Your task to perform on an android device: View the shopping cart on target. Add "jbl charge 4" to the cart on target Image 0: 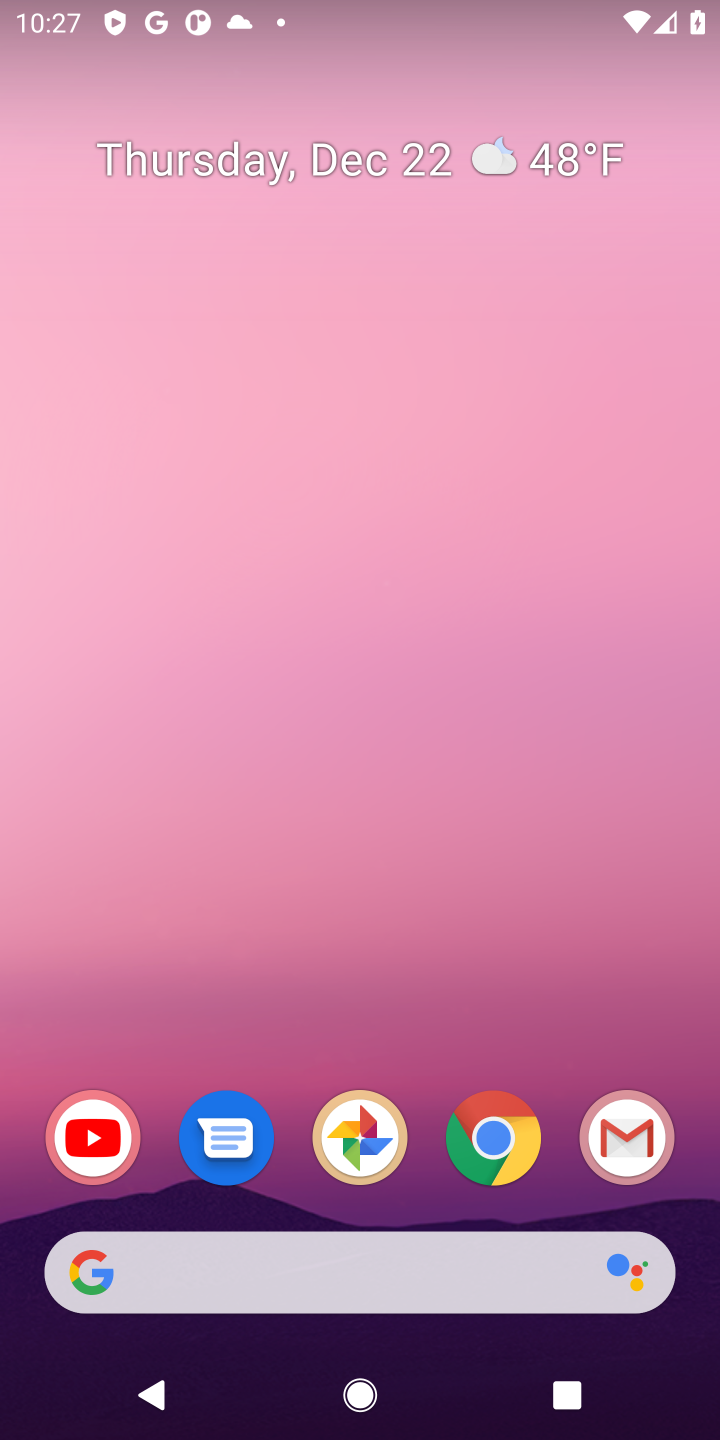
Step 0: click (485, 1135)
Your task to perform on an android device: View the shopping cart on target. Add "jbl charge 4" to the cart on target Image 1: 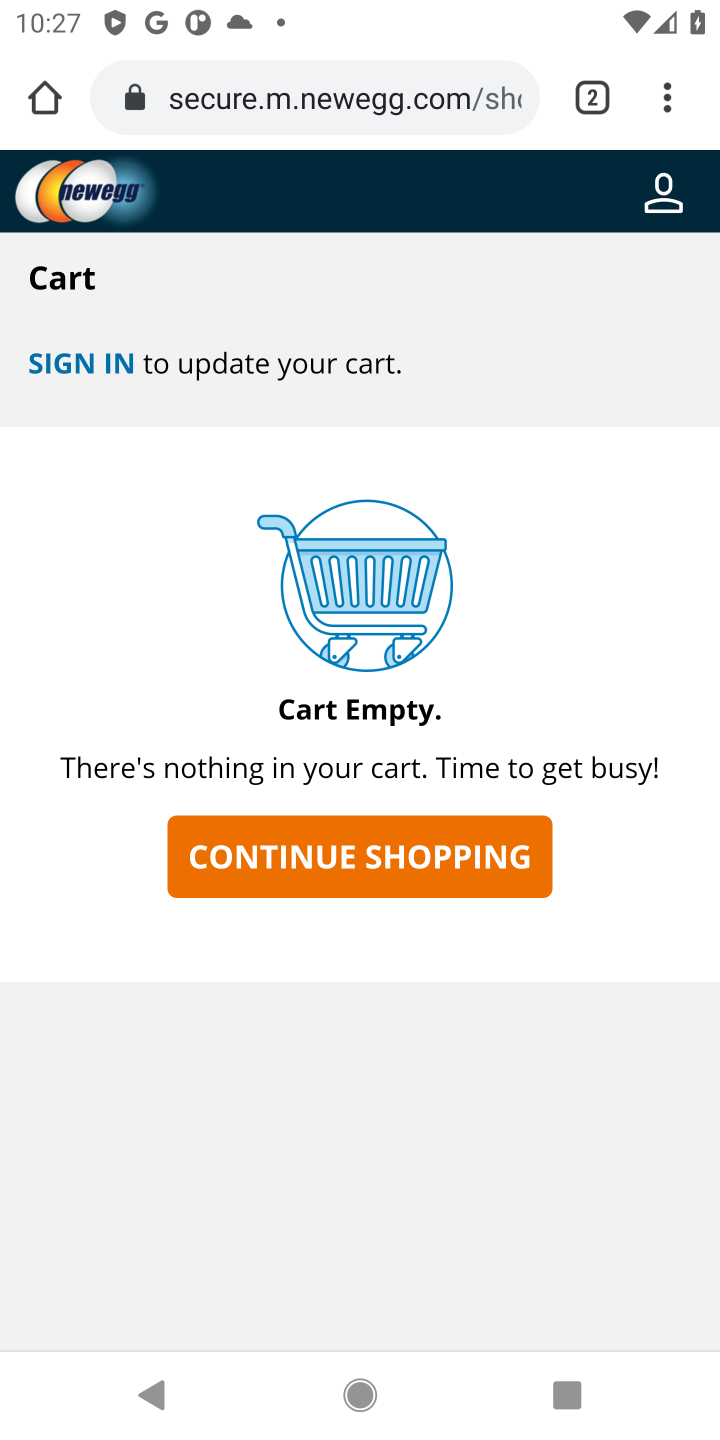
Step 1: click (472, 113)
Your task to perform on an android device: View the shopping cart on target. Add "jbl charge 4" to the cart on target Image 2: 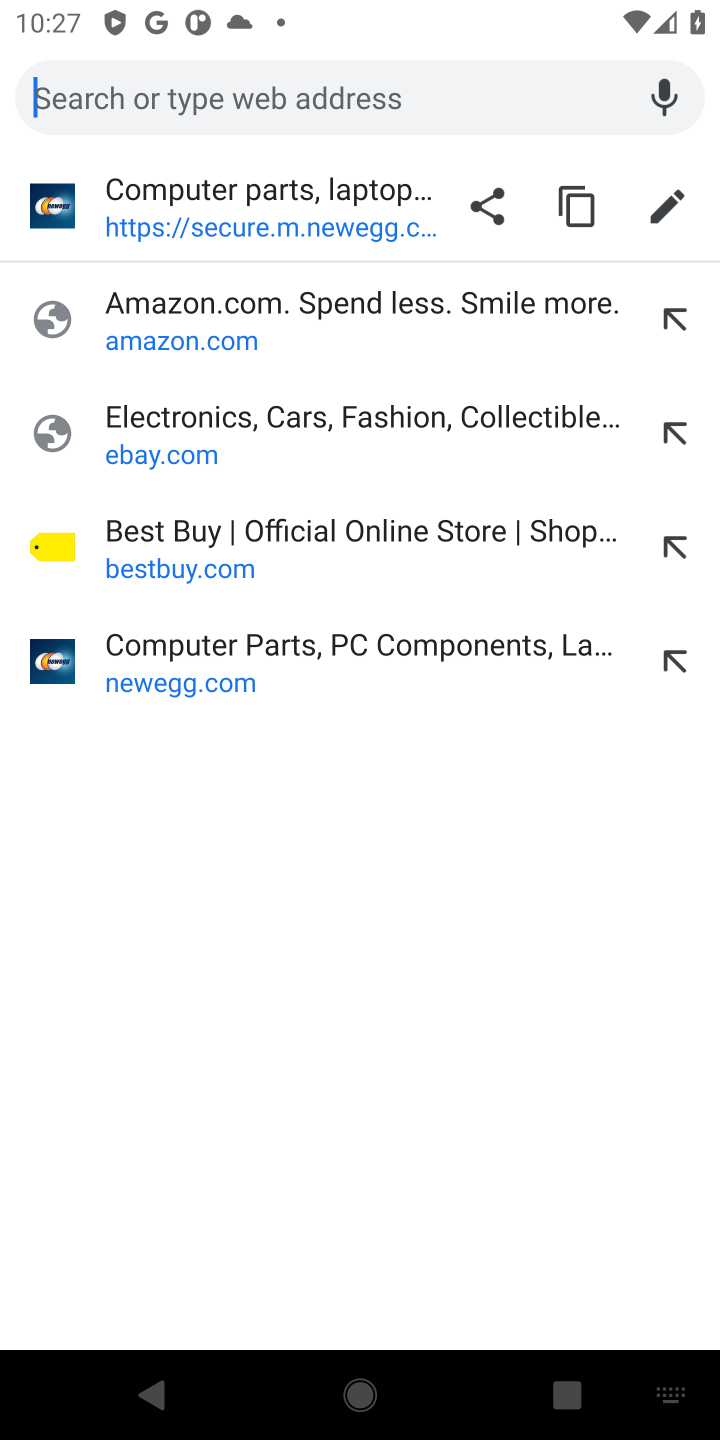
Step 2: type "target"
Your task to perform on an android device: View the shopping cart on target. Add "jbl charge 4" to the cart on target Image 3: 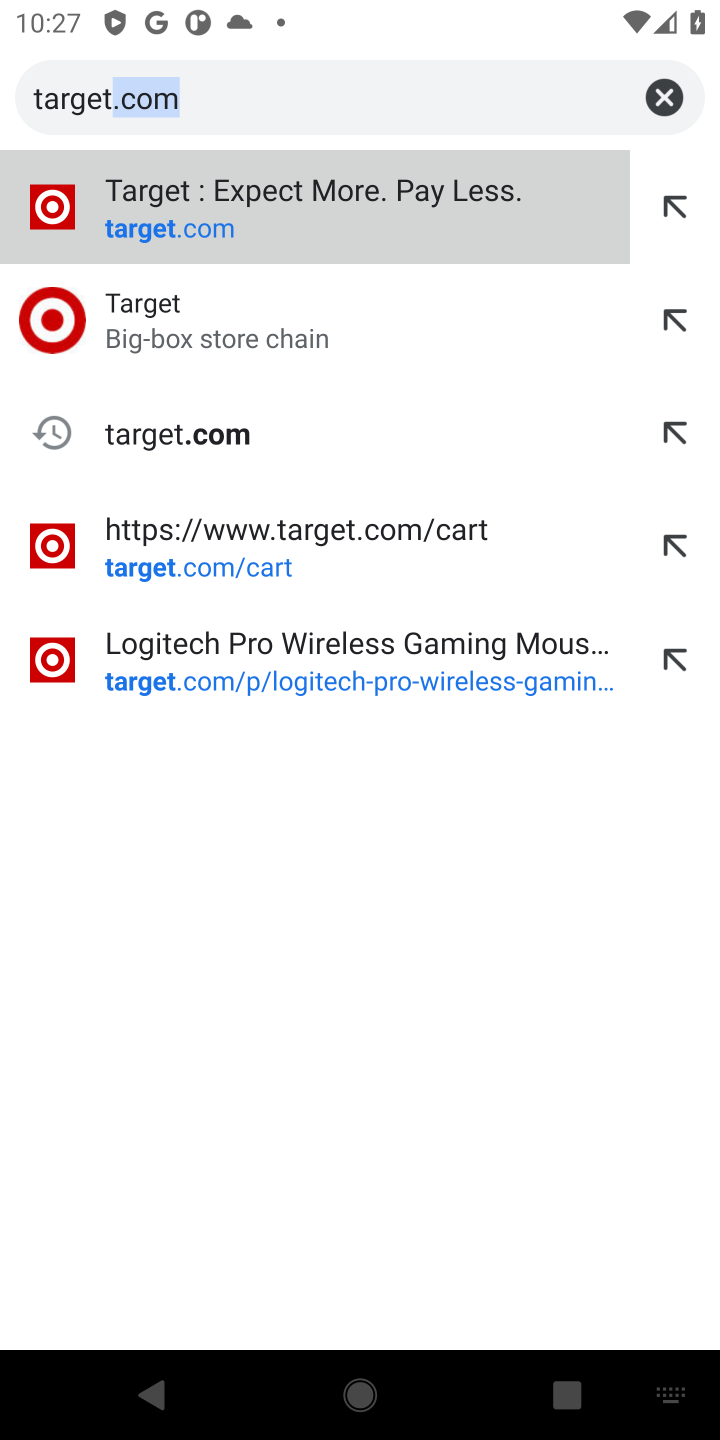
Step 3: press enter
Your task to perform on an android device: View the shopping cart on target. Add "jbl charge 4" to the cart on target Image 4: 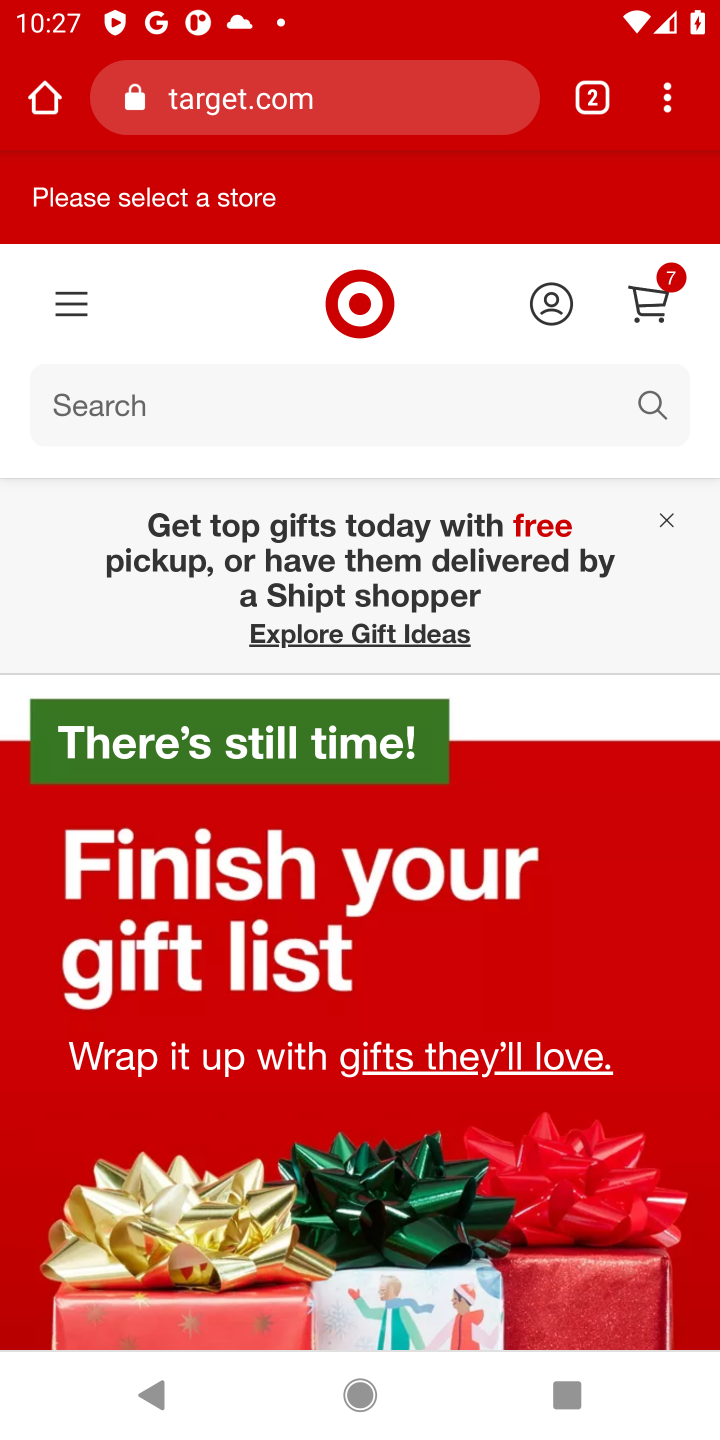
Step 4: click (640, 305)
Your task to perform on an android device: View the shopping cart on target. Add "jbl charge 4" to the cart on target Image 5: 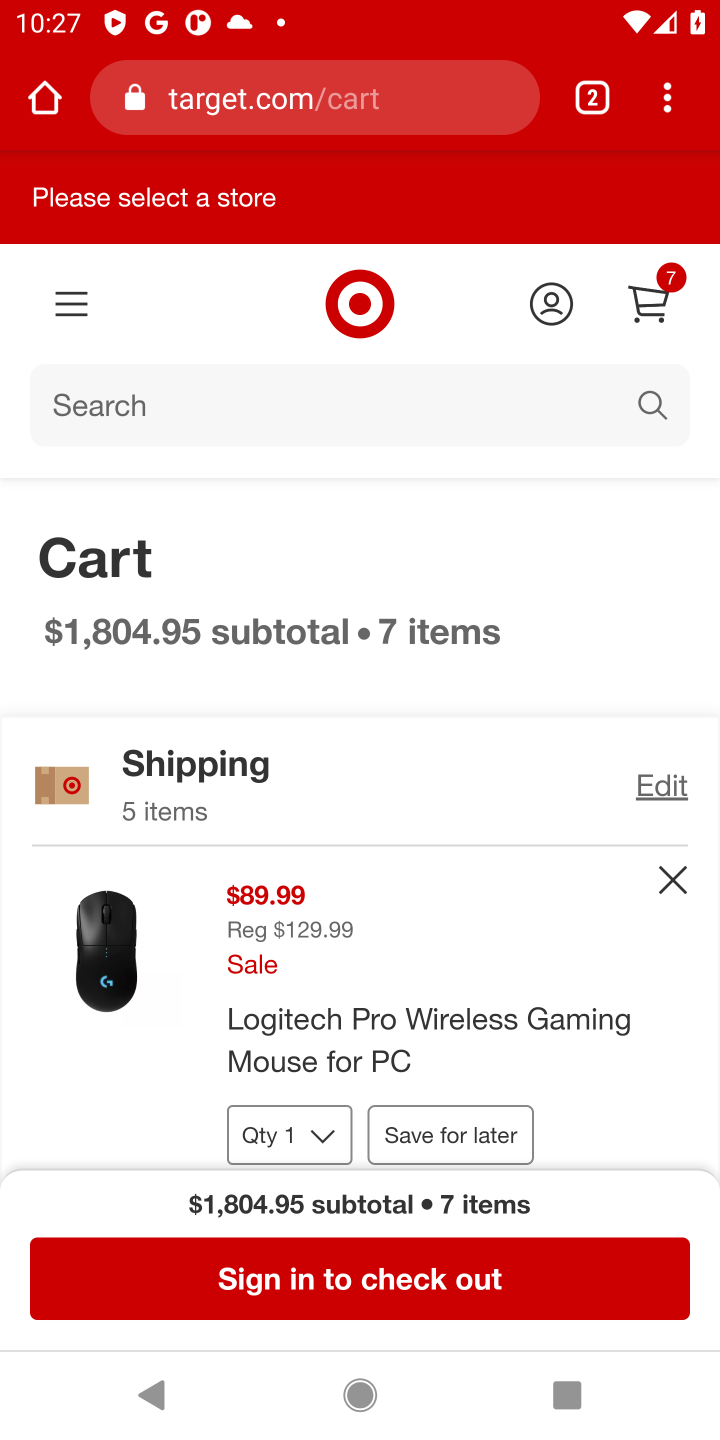
Step 5: click (270, 408)
Your task to perform on an android device: View the shopping cart on target. Add "jbl charge 4" to the cart on target Image 6: 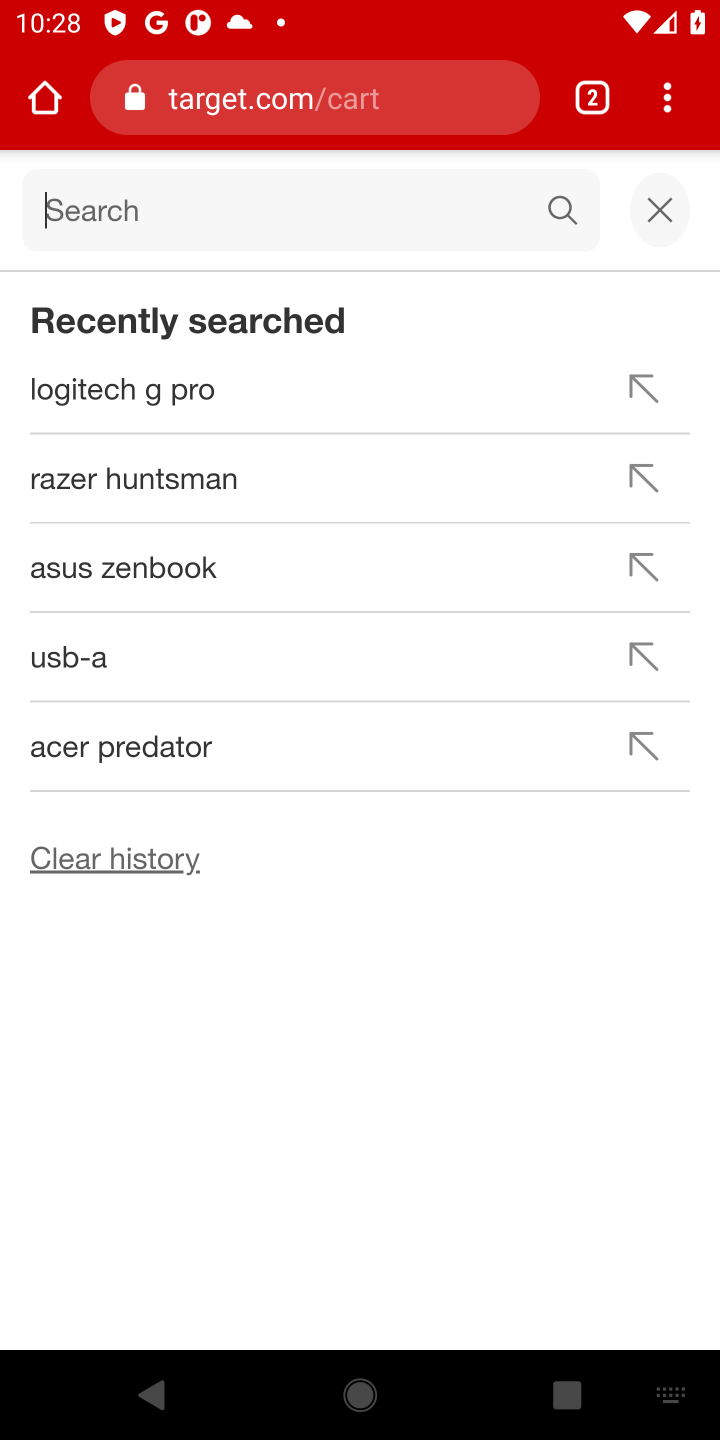
Step 6: press enter
Your task to perform on an android device: View the shopping cart on target. Add "jbl charge 4" to the cart on target Image 7: 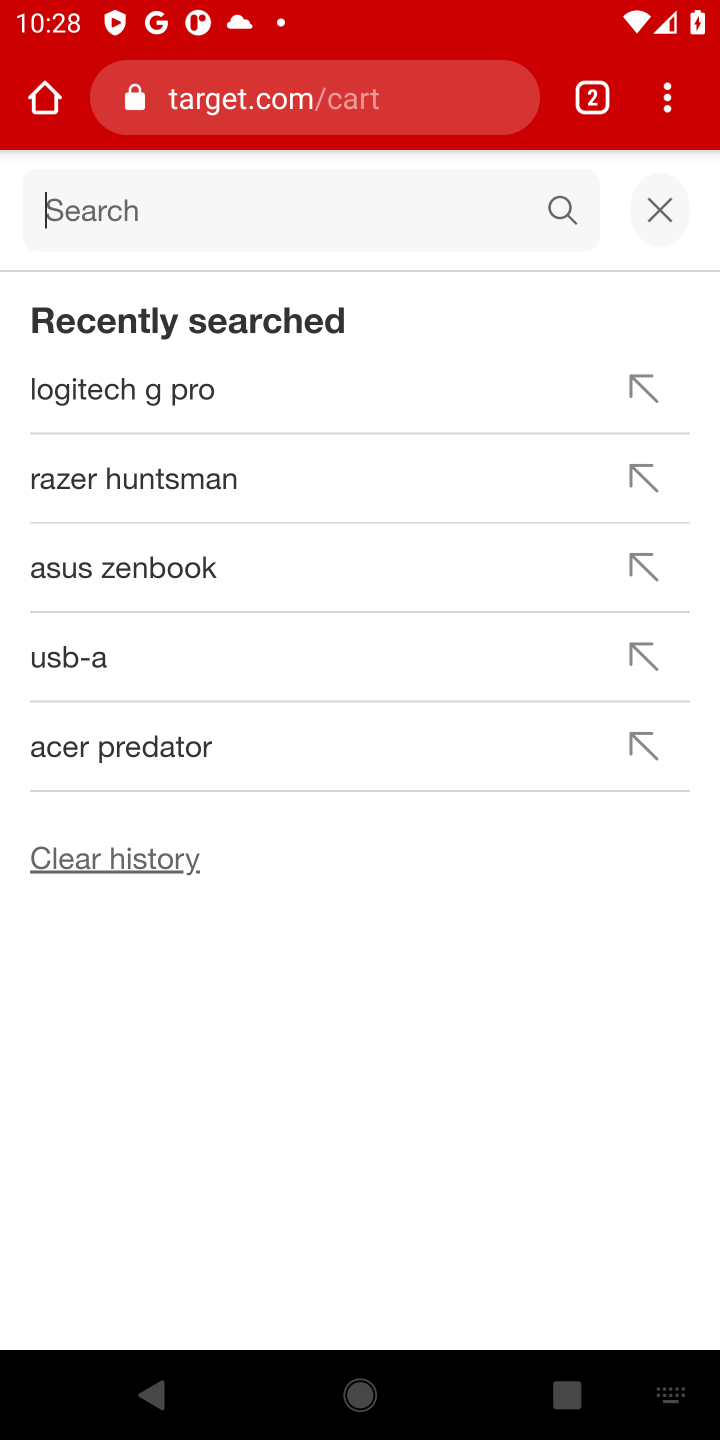
Step 7: type "jbl charge 4"
Your task to perform on an android device: View the shopping cart on target. Add "jbl charge 4" to the cart on target Image 8: 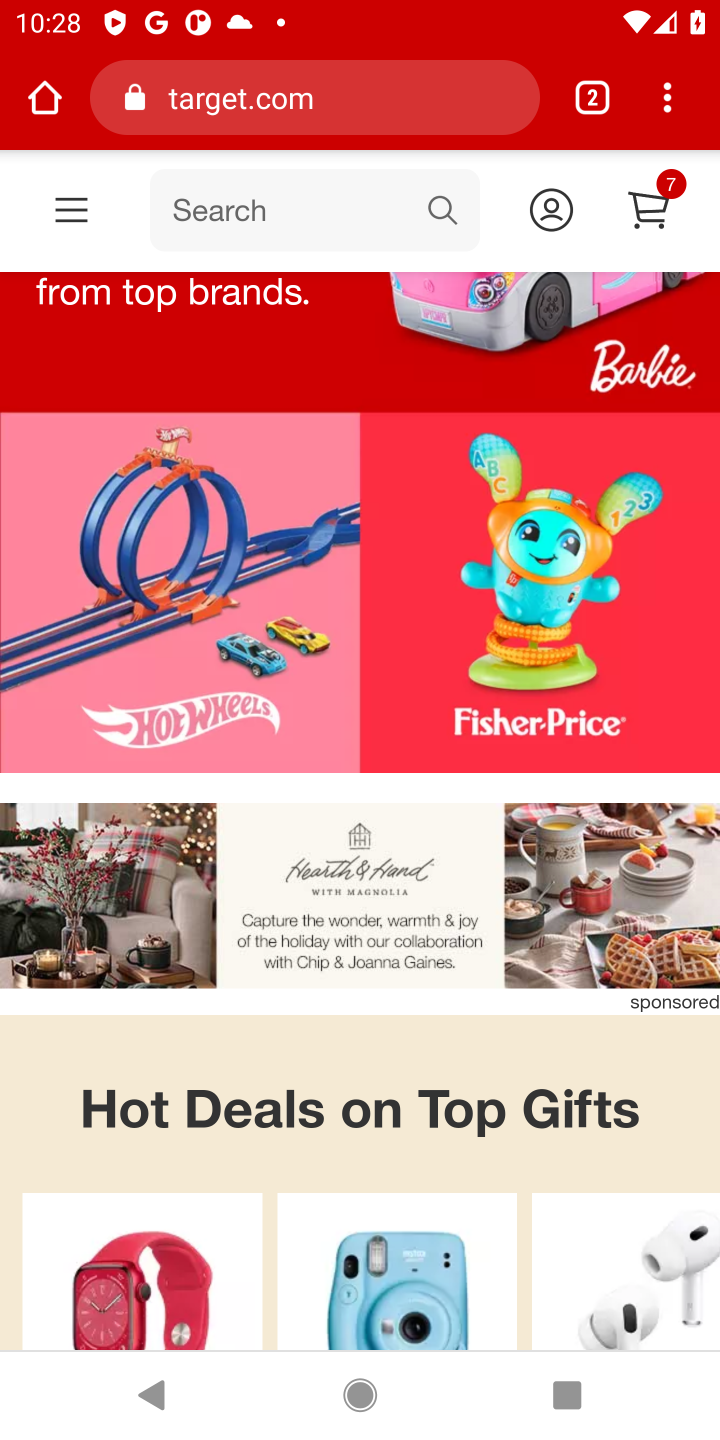
Step 8: click (356, 210)
Your task to perform on an android device: View the shopping cart on target. Add "jbl charge 4" to the cart on target Image 9: 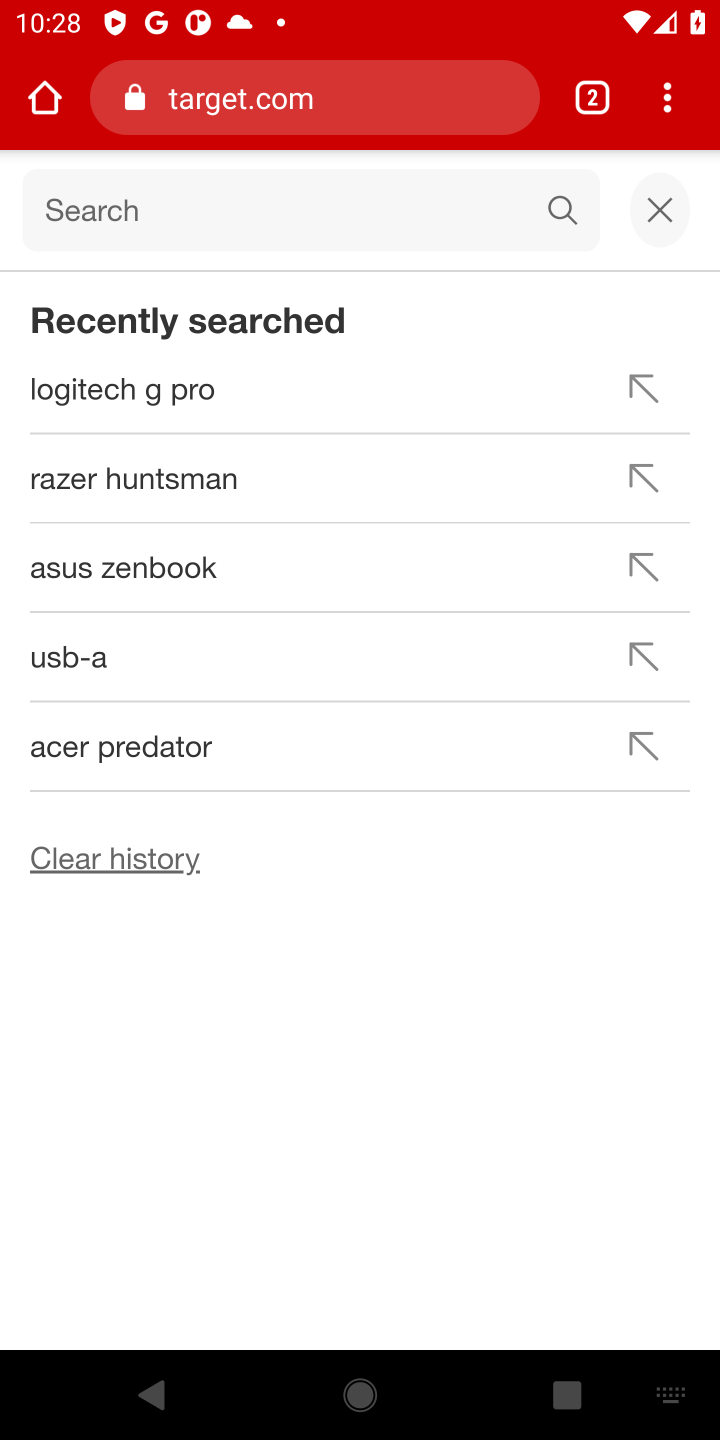
Step 9: type "jbl charge 4"
Your task to perform on an android device: View the shopping cart on target. Add "jbl charge 4" to the cart on target Image 10: 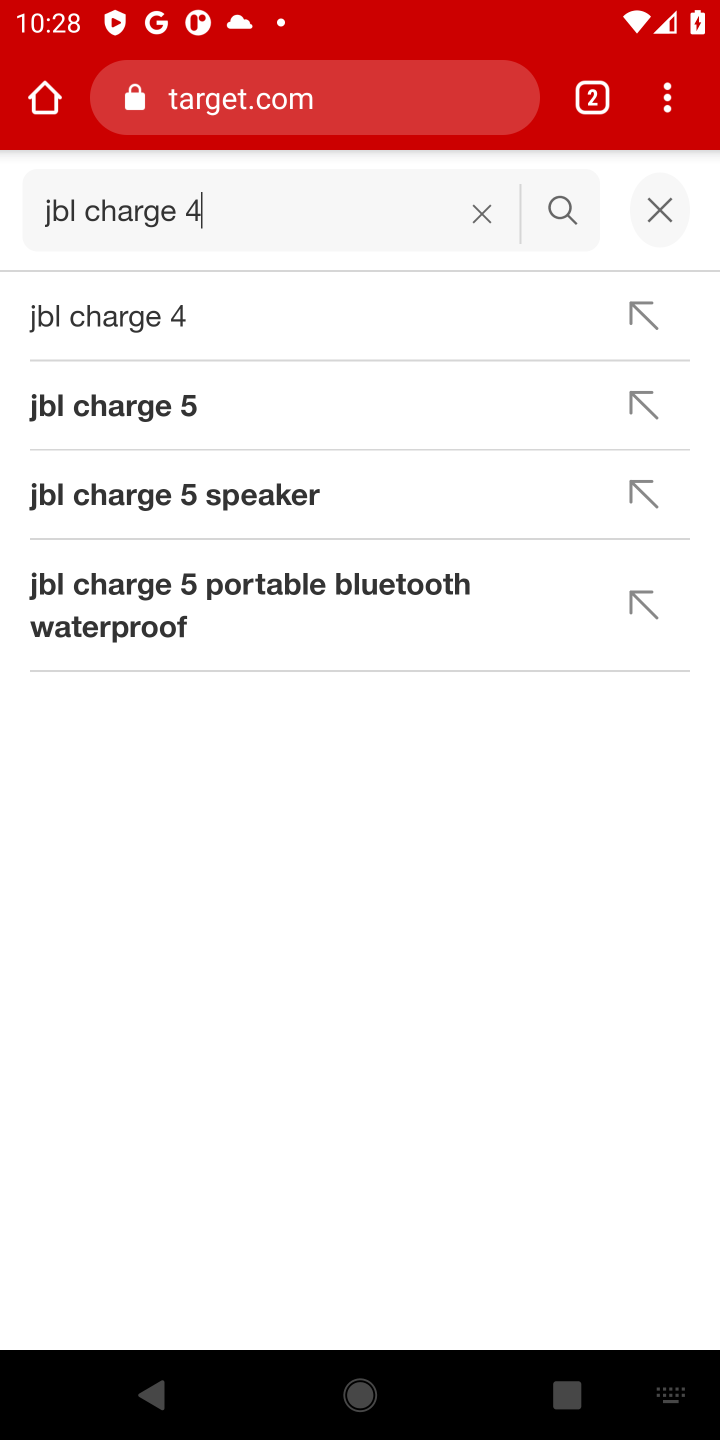
Step 10: press enter
Your task to perform on an android device: View the shopping cart on target. Add "jbl charge 4" to the cart on target Image 11: 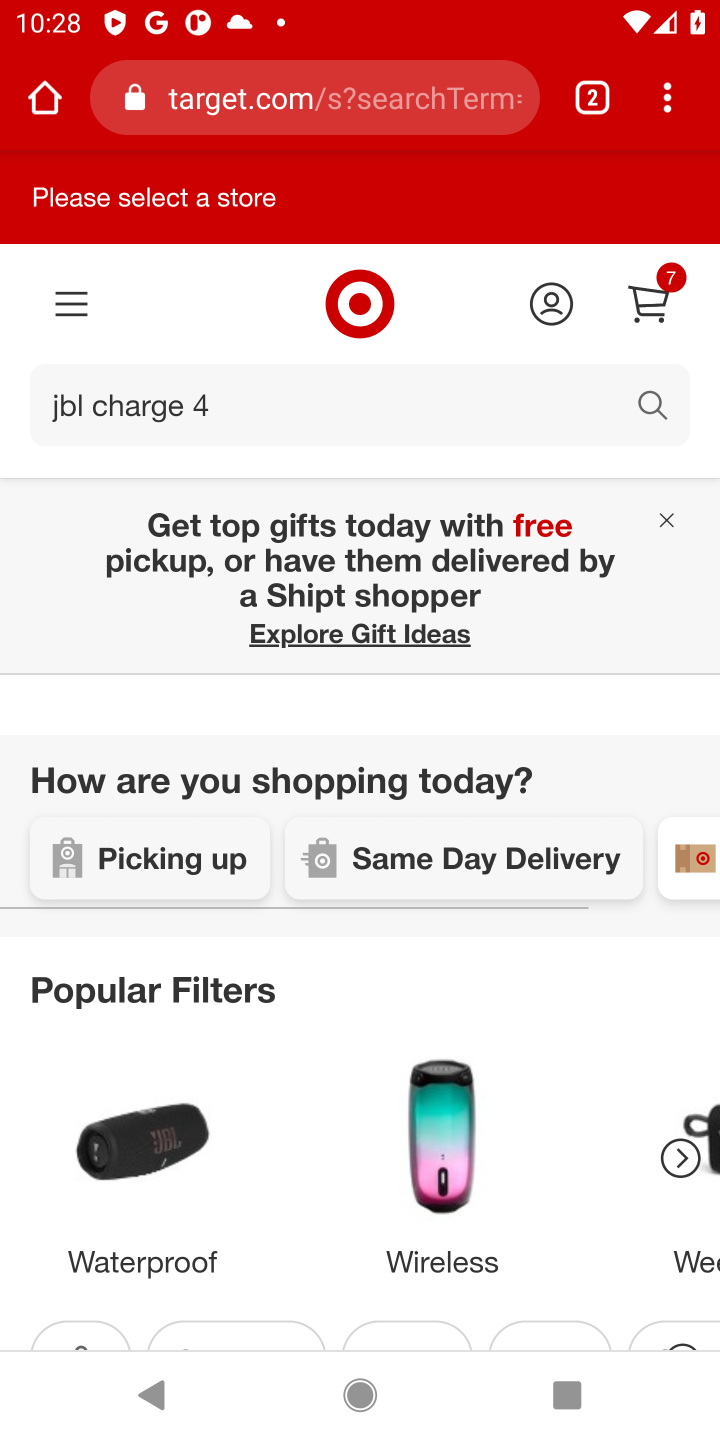
Step 11: task complete